Your task to perform on an android device: turn off javascript in the chrome app Image 0: 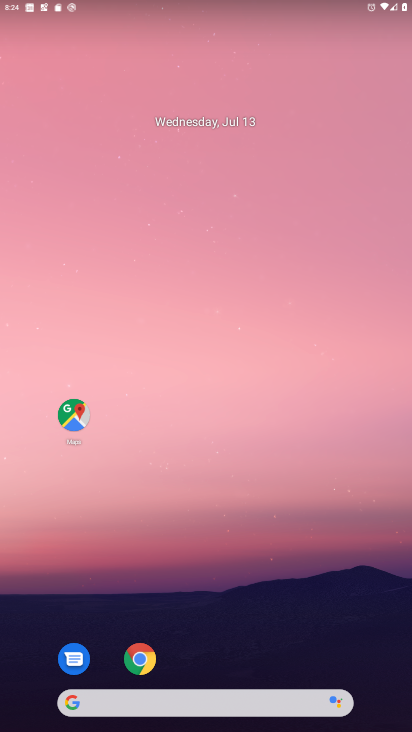
Step 0: click (144, 655)
Your task to perform on an android device: turn off javascript in the chrome app Image 1: 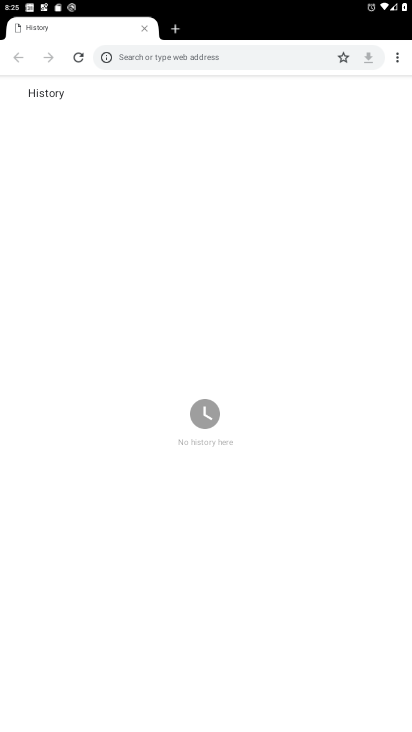
Step 1: click (397, 59)
Your task to perform on an android device: turn off javascript in the chrome app Image 2: 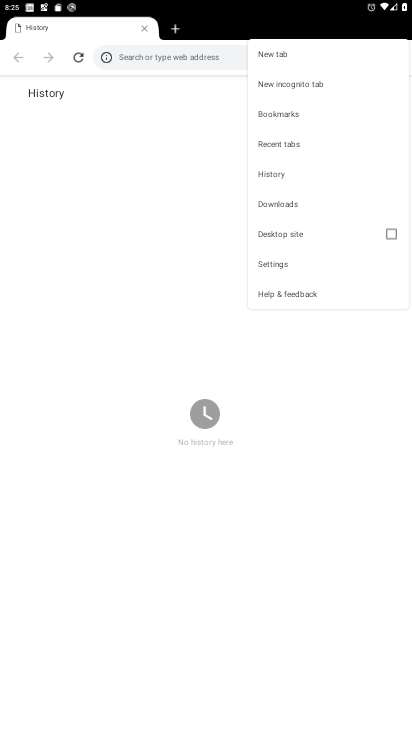
Step 2: click (276, 264)
Your task to perform on an android device: turn off javascript in the chrome app Image 3: 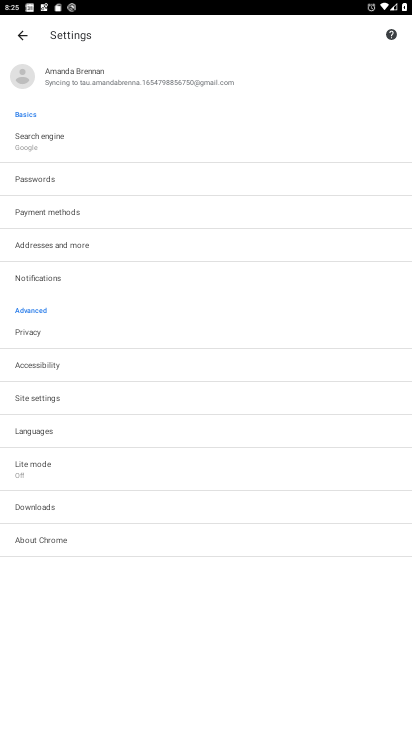
Step 3: click (51, 399)
Your task to perform on an android device: turn off javascript in the chrome app Image 4: 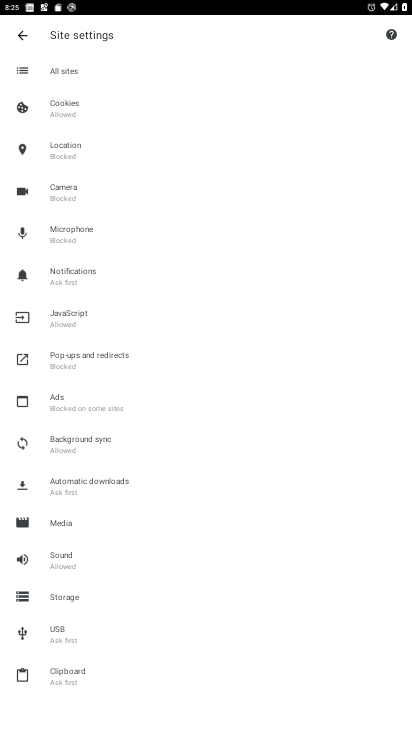
Step 4: click (65, 314)
Your task to perform on an android device: turn off javascript in the chrome app Image 5: 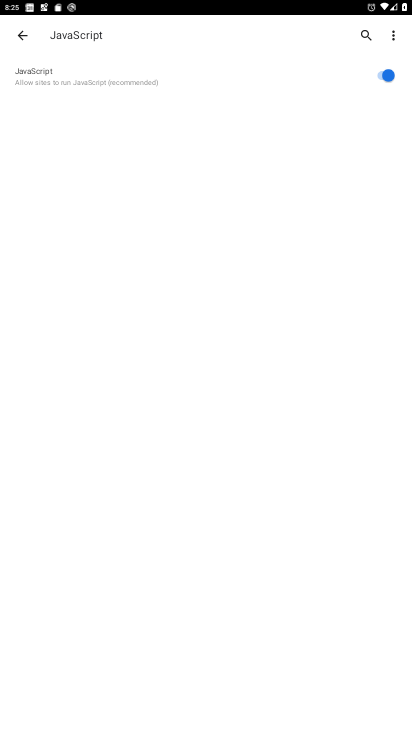
Step 5: click (384, 66)
Your task to perform on an android device: turn off javascript in the chrome app Image 6: 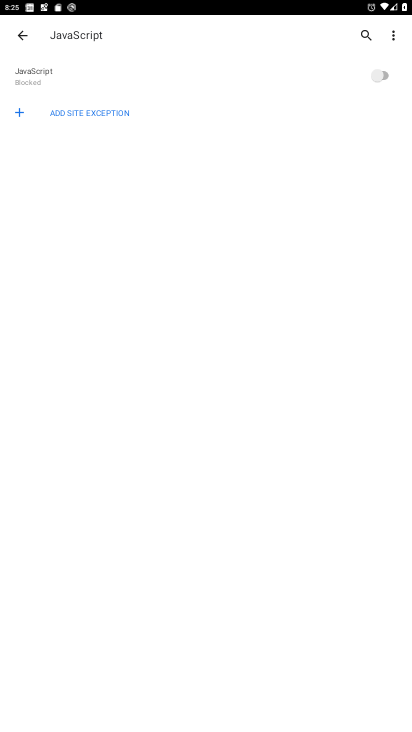
Step 6: task complete